Your task to perform on an android device: Go to Wikipedia Image 0: 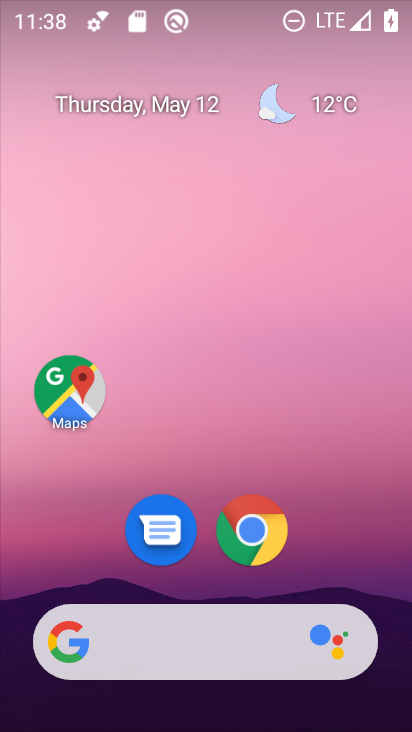
Step 0: press home button
Your task to perform on an android device: Go to Wikipedia Image 1: 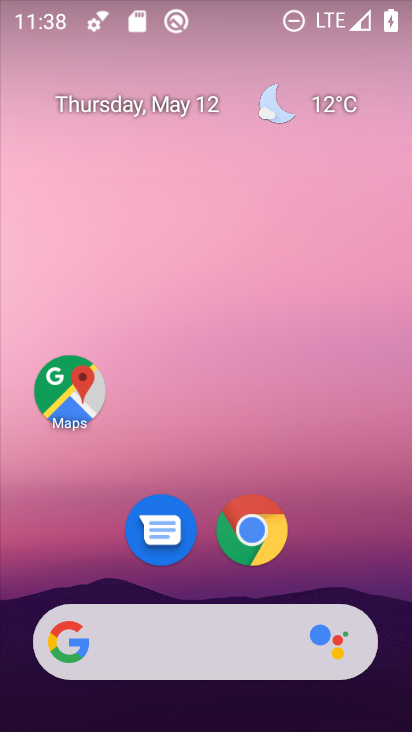
Step 1: click (253, 542)
Your task to perform on an android device: Go to Wikipedia Image 2: 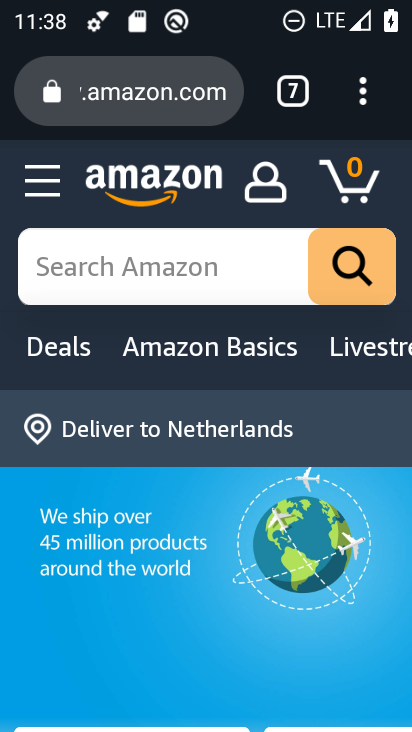
Step 2: drag from (366, 97) to (179, 177)
Your task to perform on an android device: Go to Wikipedia Image 3: 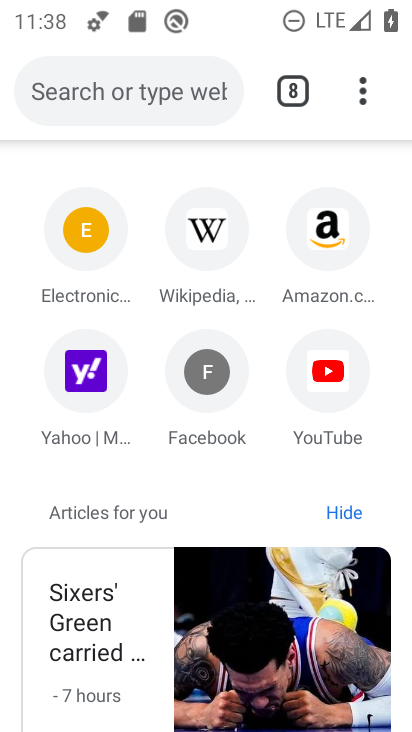
Step 3: click (196, 232)
Your task to perform on an android device: Go to Wikipedia Image 4: 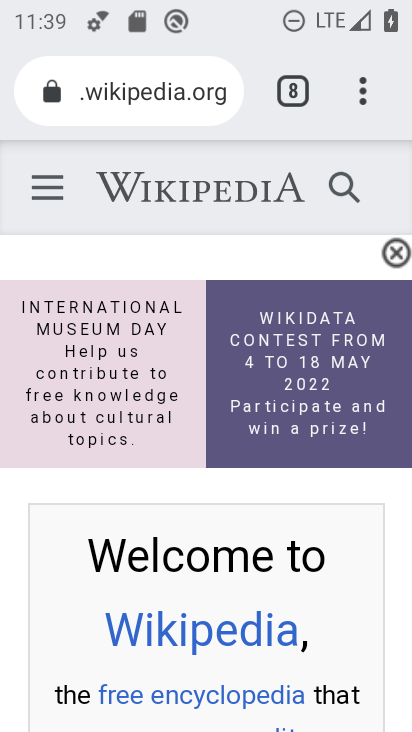
Step 4: task complete